Your task to perform on an android device: add a label to a message in the gmail app Image 0: 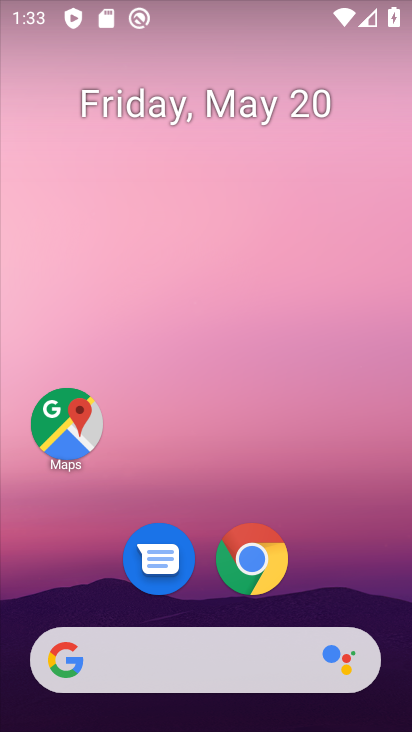
Step 0: drag from (321, 587) to (303, 37)
Your task to perform on an android device: add a label to a message in the gmail app Image 1: 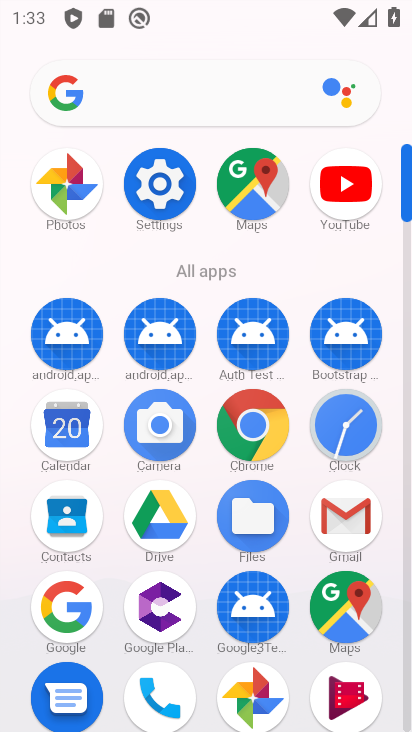
Step 1: click (339, 517)
Your task to perform on an android device: add a label to a message in the gmail app Image 2: 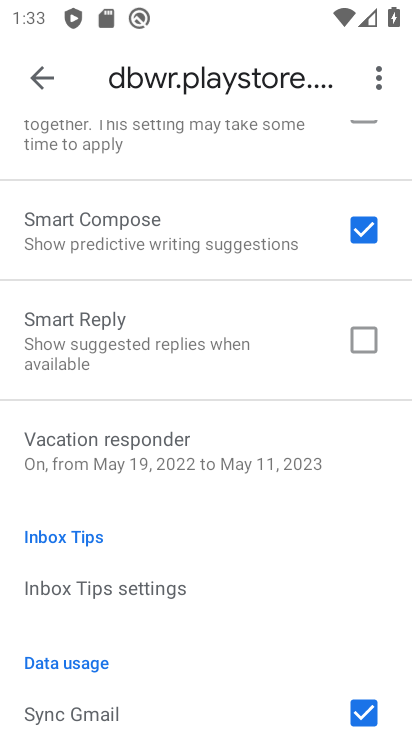
Step 2: click (50, 83)
Your task to perform on an android device: add a label to a message in the gmail app Image 3: 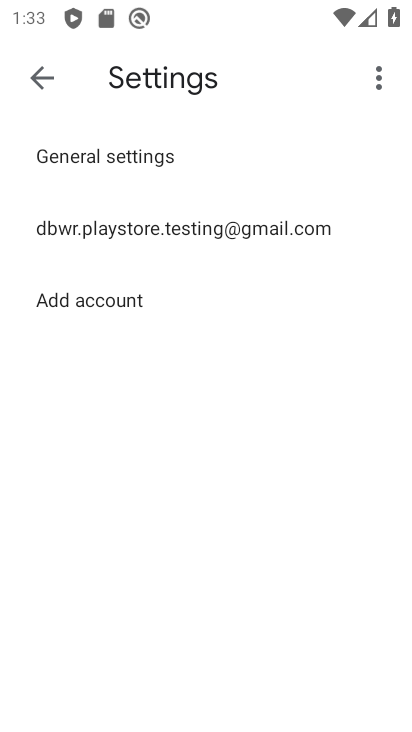
Step 3: click (55, 80)
Your task to perform on an android device: add a label to a message in the gmail app Image 4: 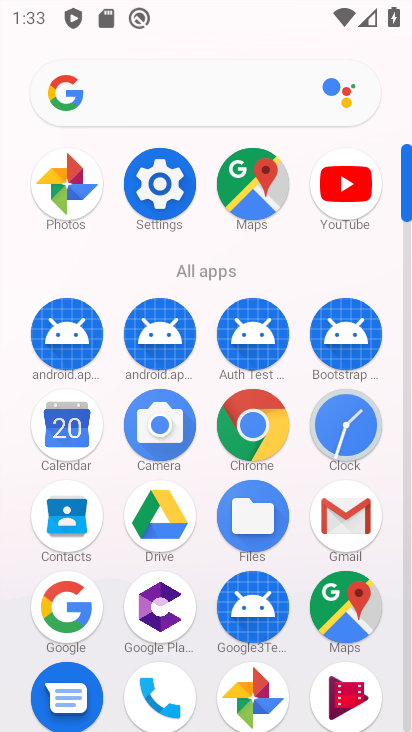
Step 4: click (338, 506)
Your task to perform on an android device: add a label to a message in the gmail app Image 5: 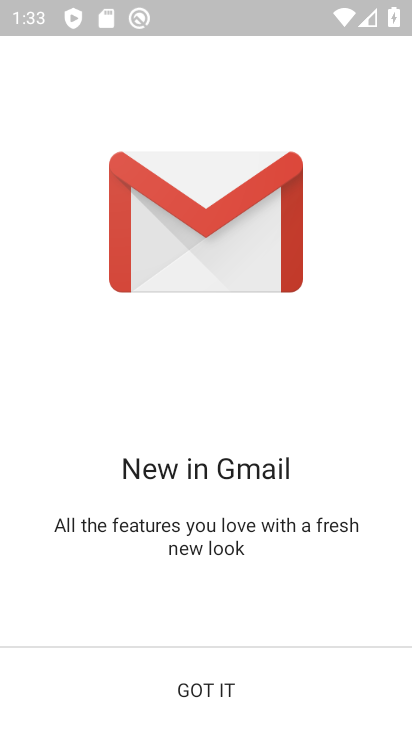
Step 5: click (121, 660)
Your task to perform on an android device: add a label to a message in the gmail app Image 6: 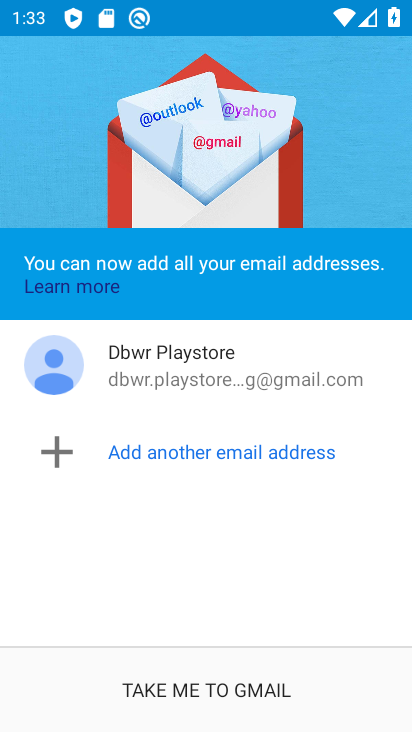
Step 6: click (191, 693)
Your task to perform on an android device: add a label to a message in the gmail app Image 7: 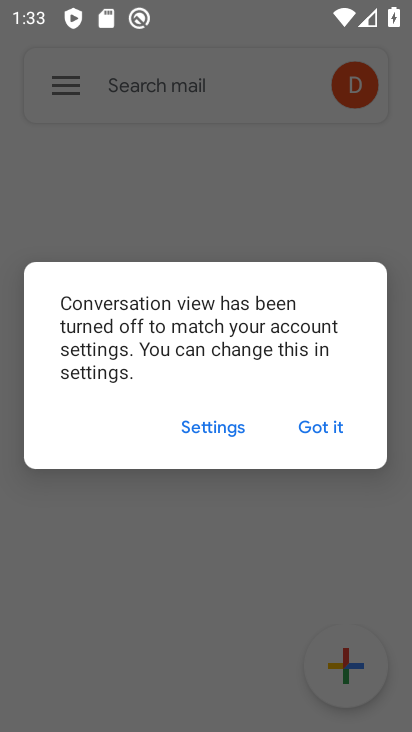
Step 7: click (335, 427)
Your task to perform on an android device: add a label to a message in the gmail app Image 8: 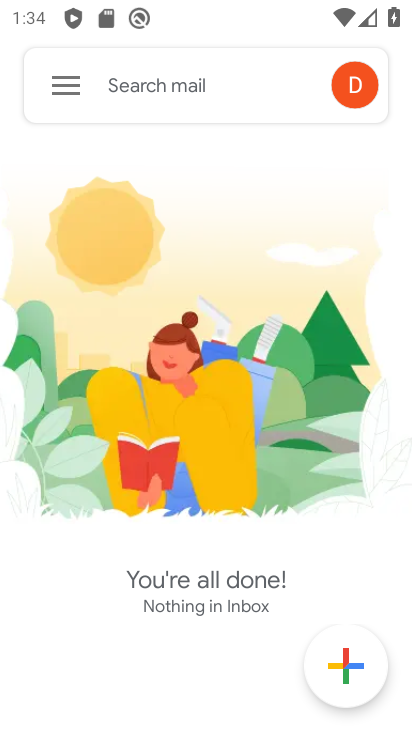
Step 8: click (70, 93)
Your task to perform on an android device: add a label to a message in the gmail app Image 9: 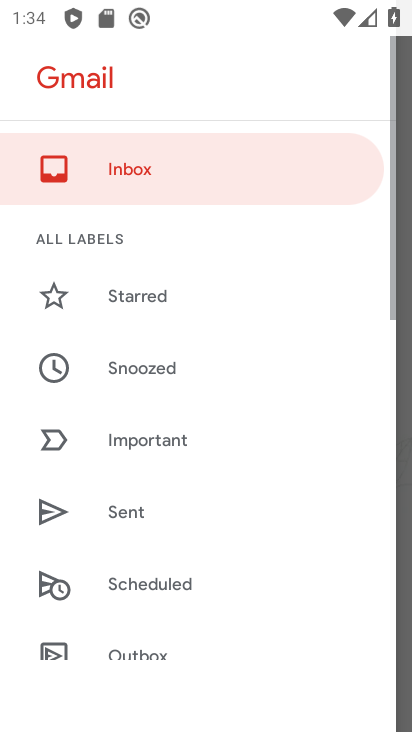
Step 9: drag from (178, 641) to (209, 260)
Your task to perform on an android device: add a label to a message in the gmail app Image 10: 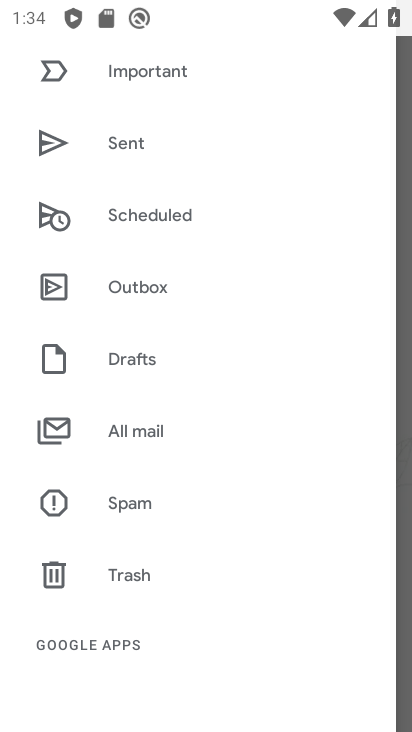
Step 10: click (154, 414)
Your task to perform on an android device: add a label to a message in the gmail app Image 11: 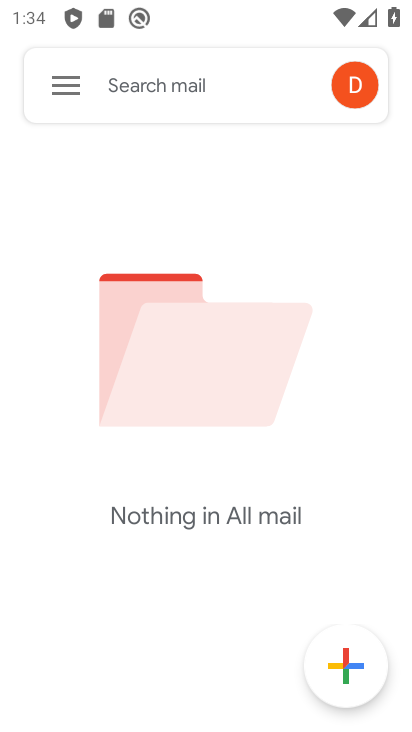
Step 11: task complete